Your task to perform on an android device: What's the weather going to be tomorrow? Image 0: 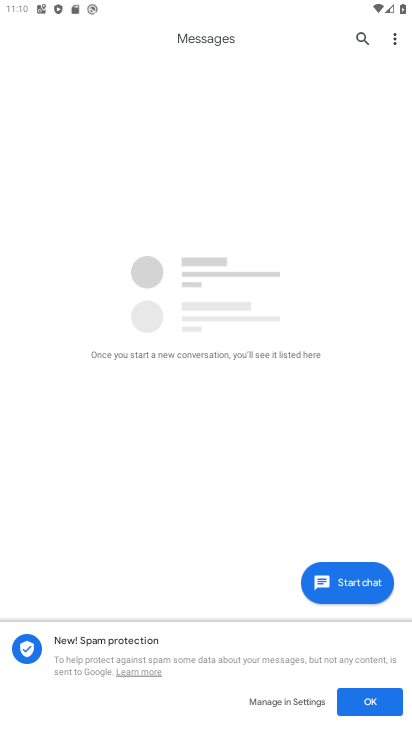
Step 0: press home button
Your task to perform on an android device: What's the weather going to be tomorrow? Image 1: 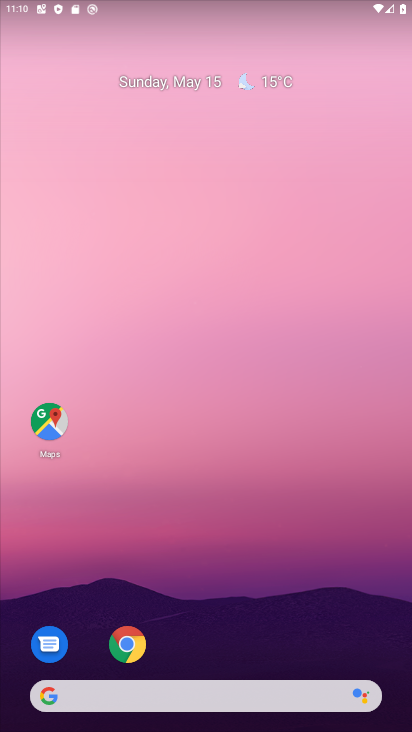
Step 1: click (278, 77)
Your task to perform on an android device: What's the weather going to be tomorrow? Image 2: 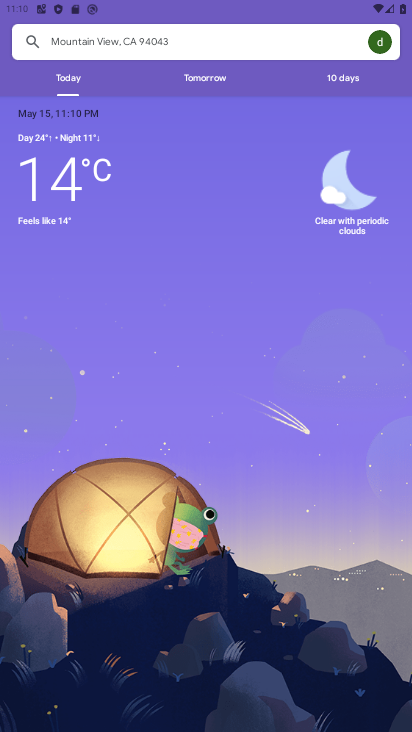
Step 2: click (210, 88)
Your task to perform on an android device: What's the weather going to be tomorrow? Image 3: 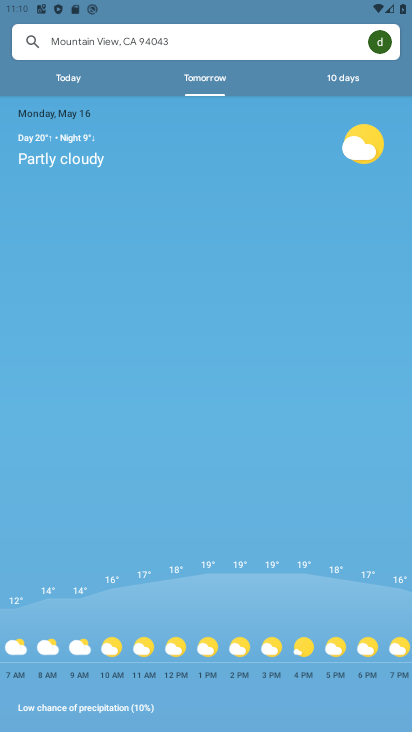
Step 3: task complete